Your task to perform on an android device: Is it going to rain today? Image 0: 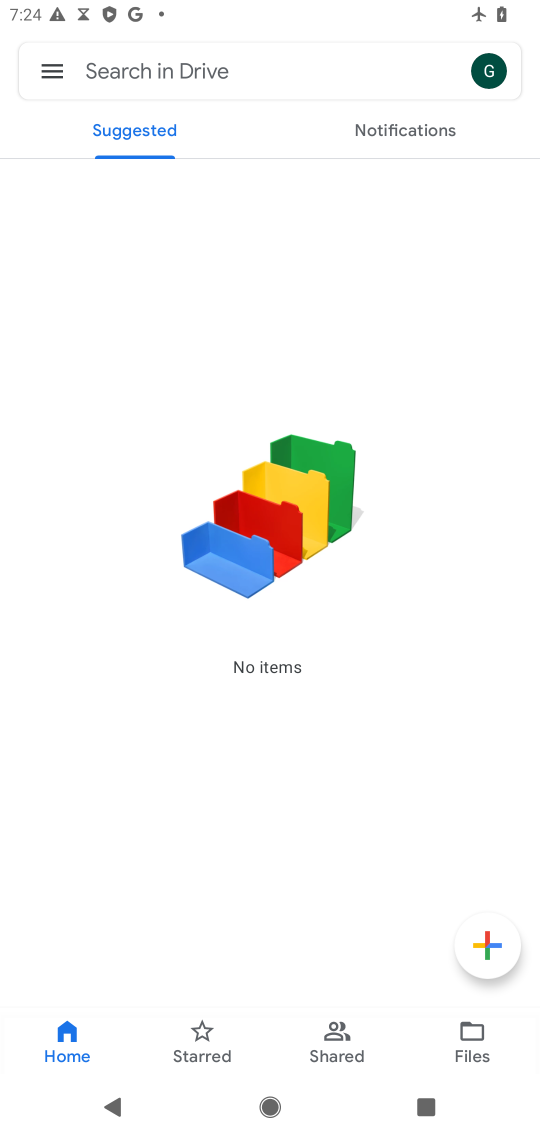
Step 0: press home button
Your task to perform on an android device: Is it going to rain today? Image 1: 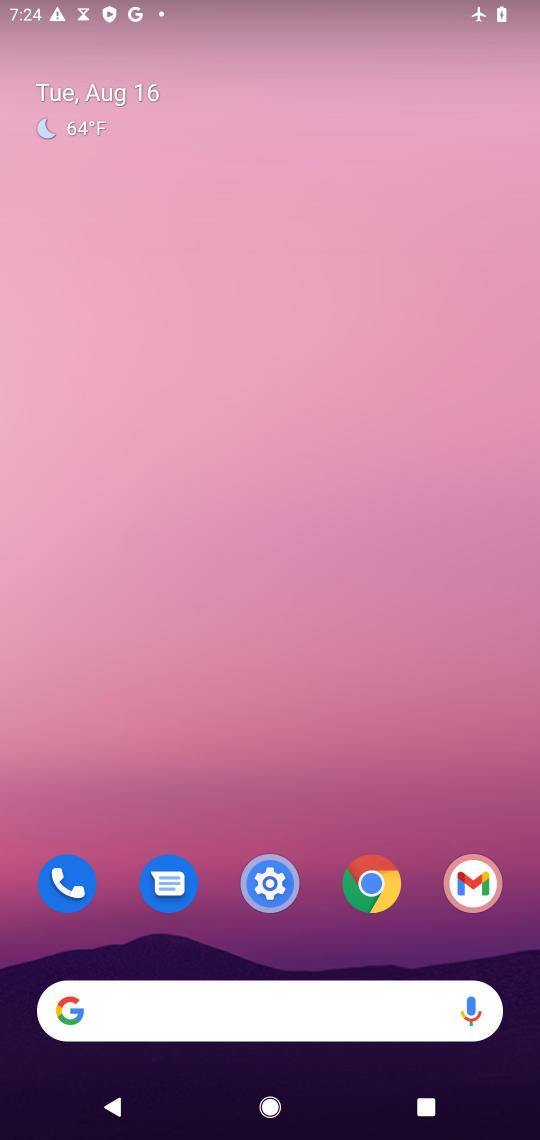
Step 1: drag from (250, 1021) to (320, 294)
Your task to perform on an android device: Is it going to rain today? Image 2: 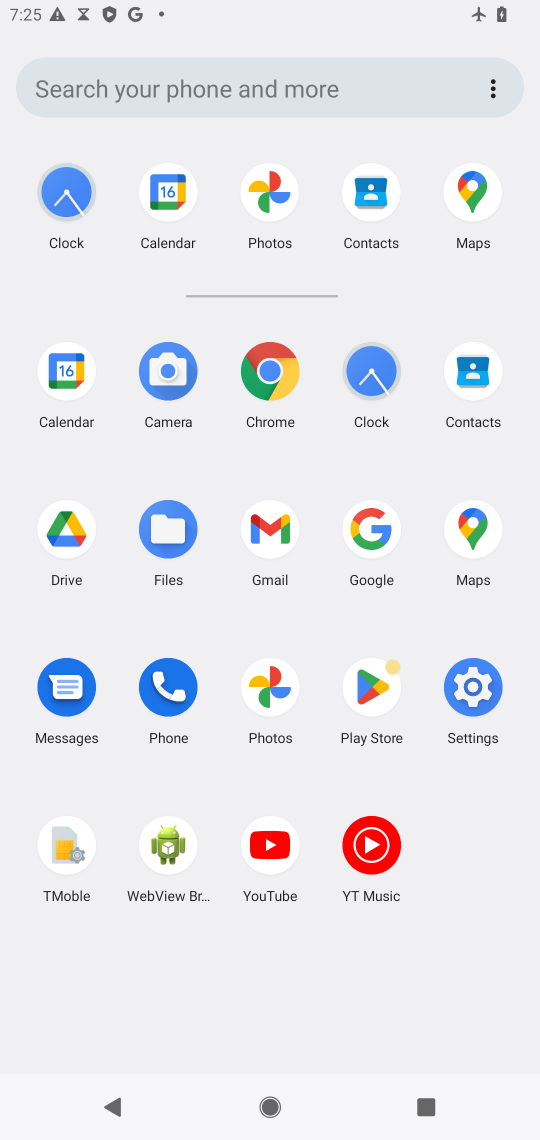
Step 2: click (369, 529)
Your task to perform on an android device: Is it going to rain today? Image 3: 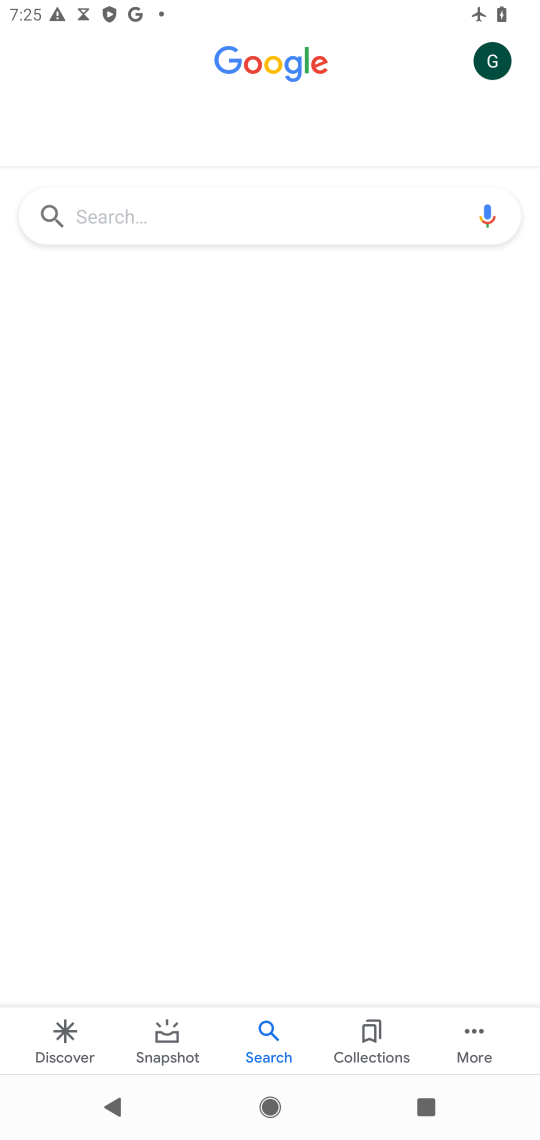
Step 3: click (278, 215)
Your task to perform on an android device: Is it going to rain today? Image 4: 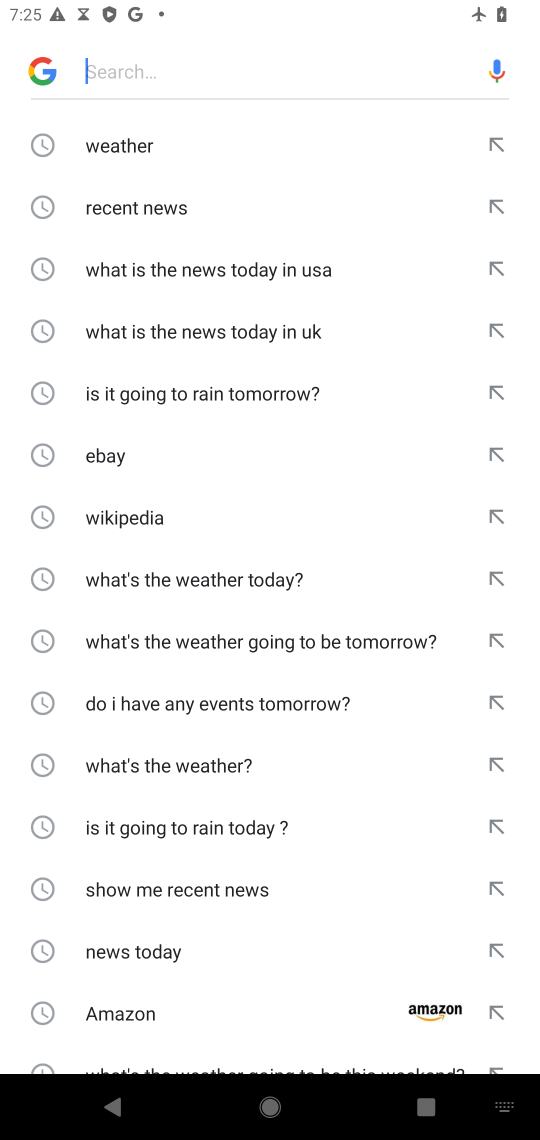
Step 4: type "Is it going to rain today?"
Your task to perform on an android device: Is it going to rain today? Image 5: 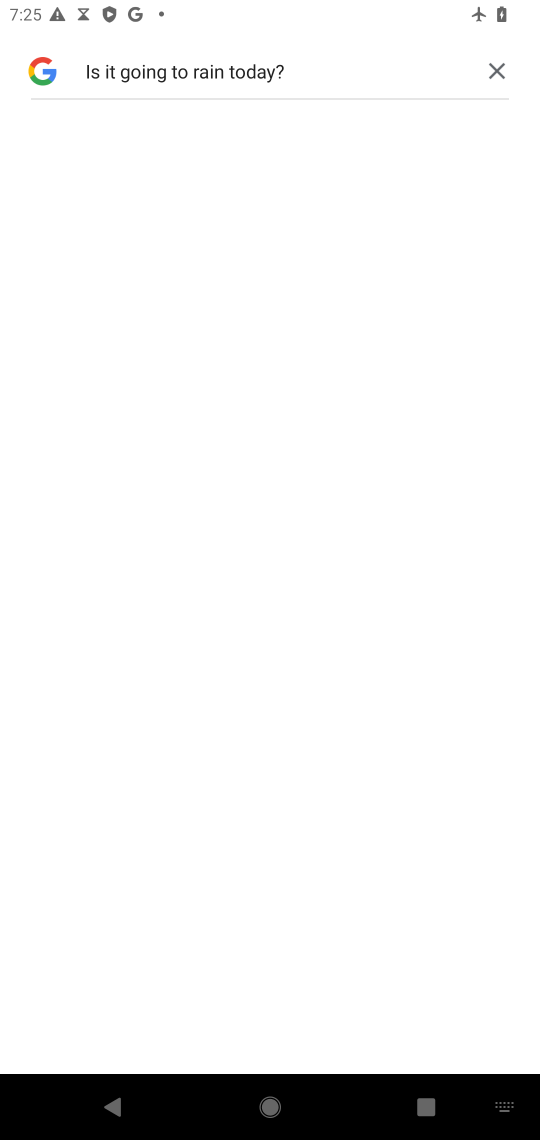
Step 5: task complete